Your task to perform on an android device: Go to calendar. Show me events next week Image 0: 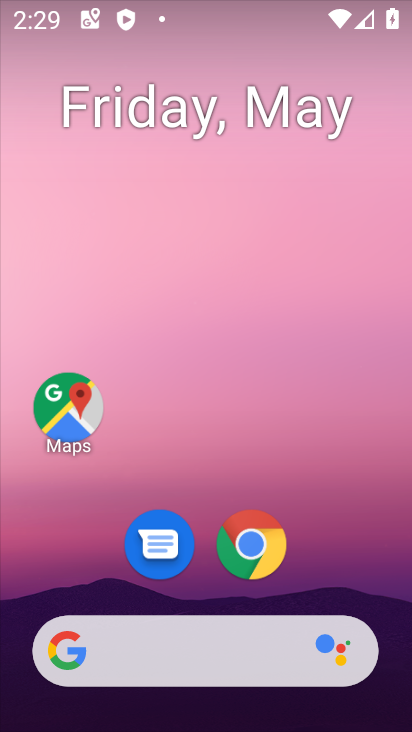
Step 0: drag from (216, 601) to (217, 206)
Your task to perform on an android device: Go to calendar. Show me events next week Image 1: 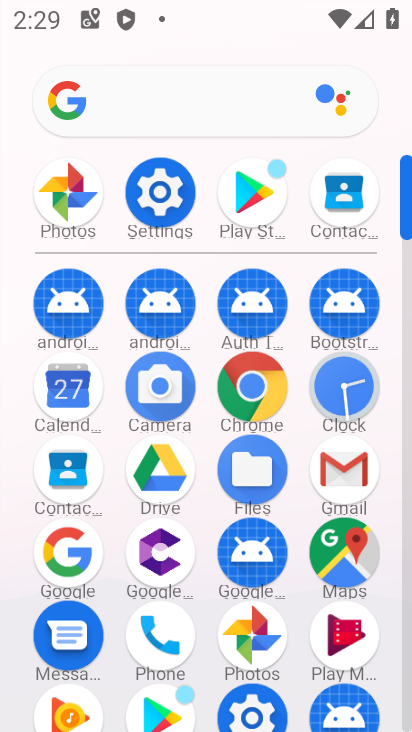
Step 1: click (52, 381)
Your task to perform on an android device: Go to calendar. Show me events next week Image 2: 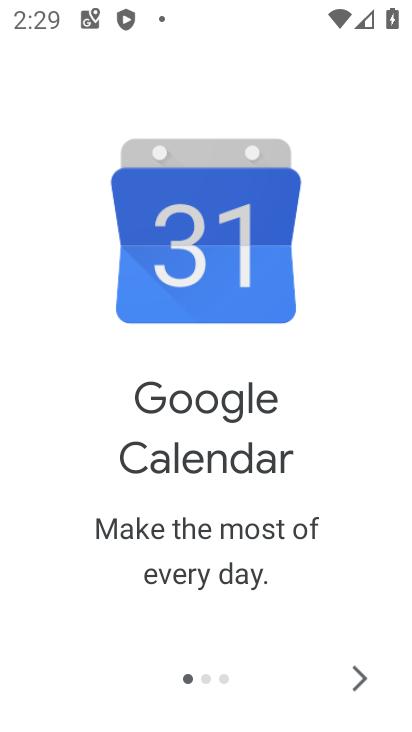
Step 2: click (358, 670)
Your task to perform on an android device: Go to calendar. Show me events next week Image 3: 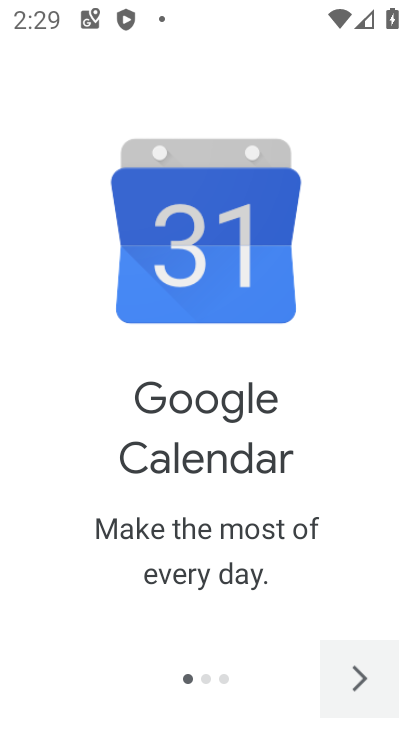
Step 3: click (358, 670)
Your task to perform on an android device: Go to calendar. Show me events next week Image 4: 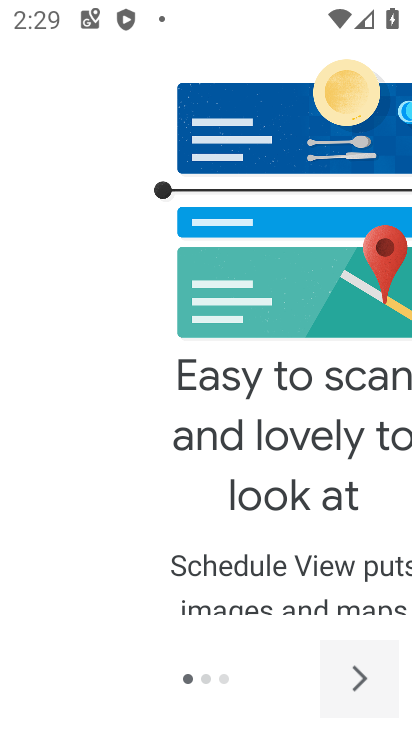
Step 4: click (358, 670)
Your task to perform on an android device: Go to calendar. Show me events next week Image 5: 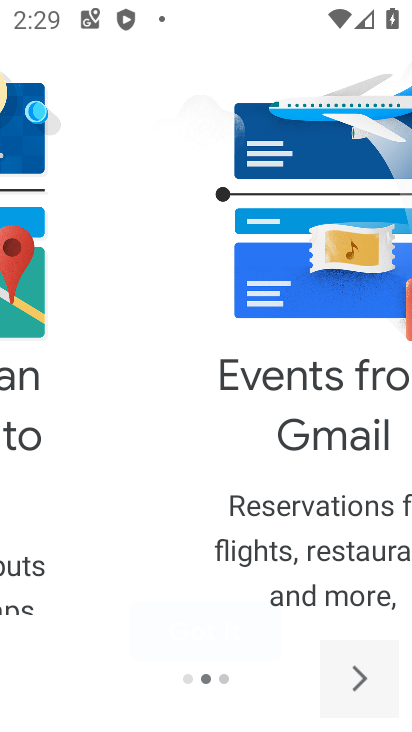
Step 5: click (358, 670)
Your task to perform on an android device: Go to calendar. Show me events next week Image 6: 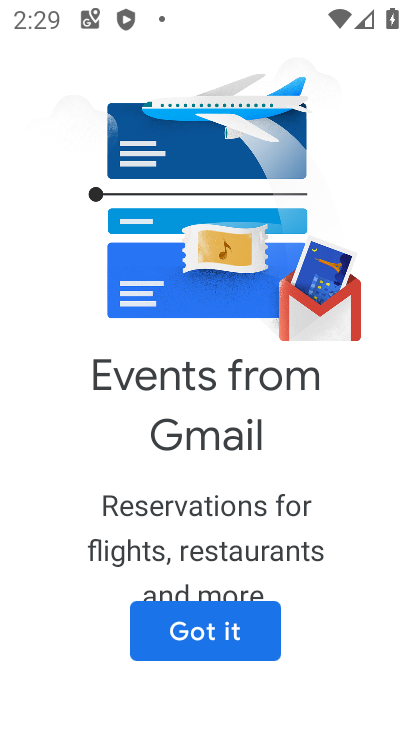
Step 6: click (205, 610)
Your task to perform on an android device: Go to calendar. Show me events next week Image 7: 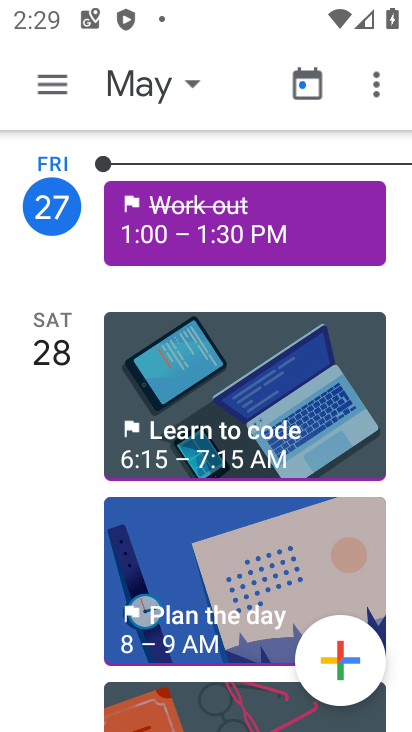
Step 7: click (191, 85)
Your task to perform on an android device: Go to calendar. Show me events next week Image 8: 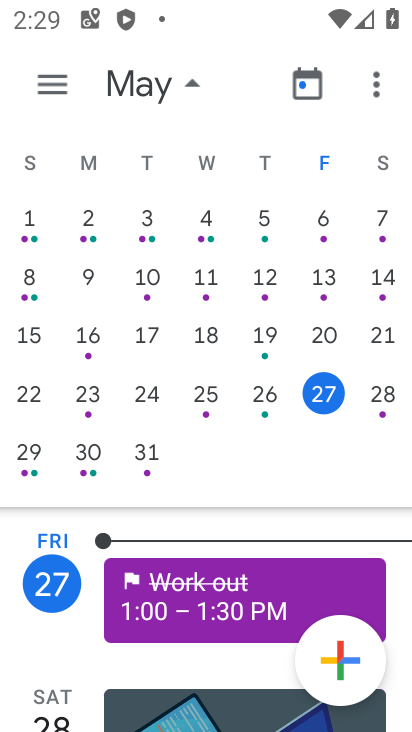
Step 8: click (155, 450)
Your task to perform on an android device: Go to calendar. Show me events next week Image 9: 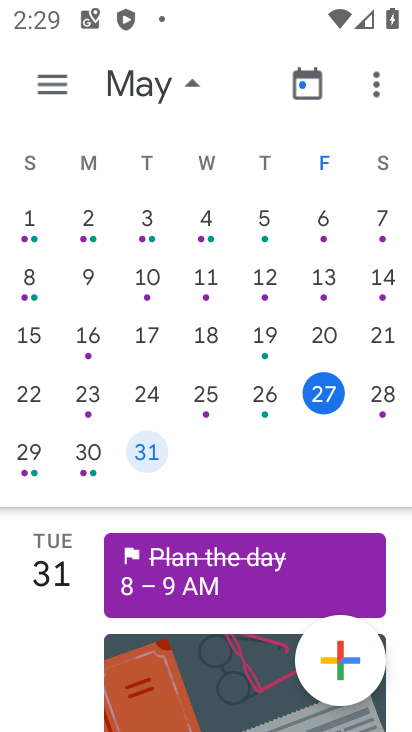
Step 9: click (12, 466)
Your task to perform on an android device: Go to calendar. Show me events next week Image 10: 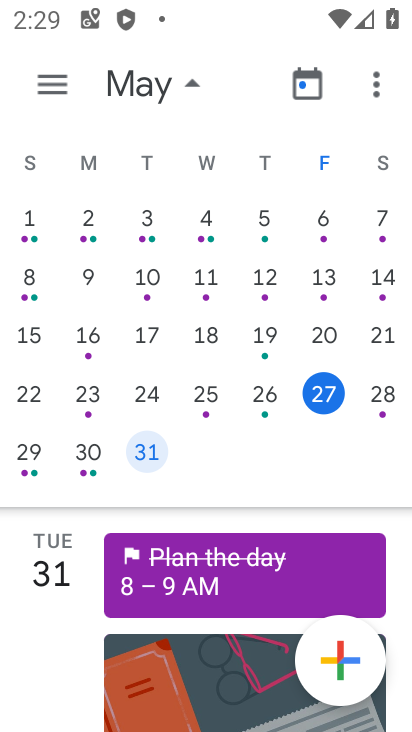
Step 10: click (44, 457)
Your task to perform on an android device: Go to calendar. Show me events next week Image 11: 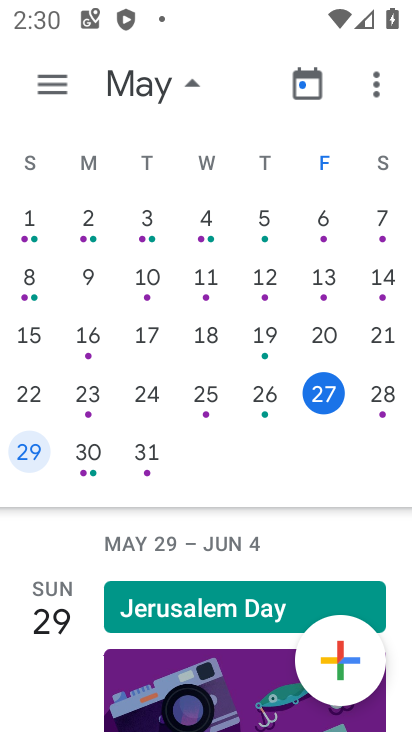
Step 11: task complete